Your task to perform on an android device: change notifications settings Image 0: 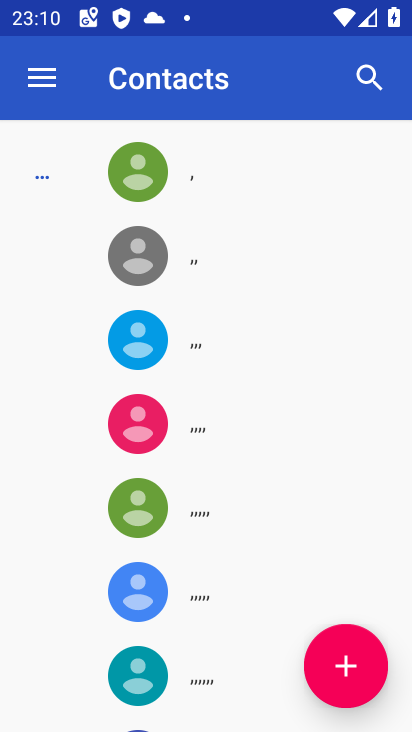
Step 0: press home button
Your task to perform on an android device: change notifications settings Image 1: 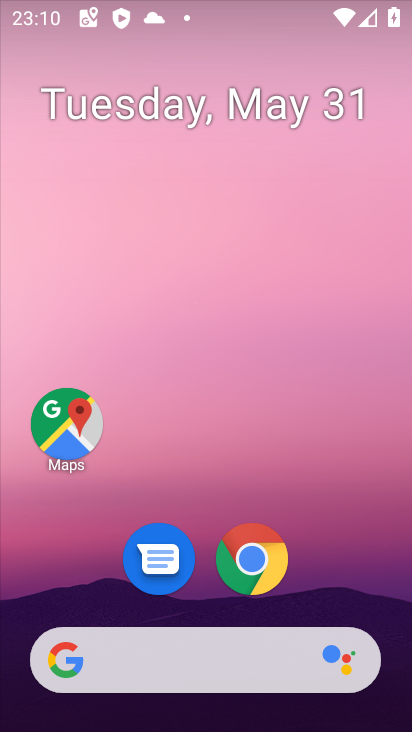
Step 1: drag from (335, 509) to (305, 66)
Your task to perform on an android device: change notifications settings Image 2: 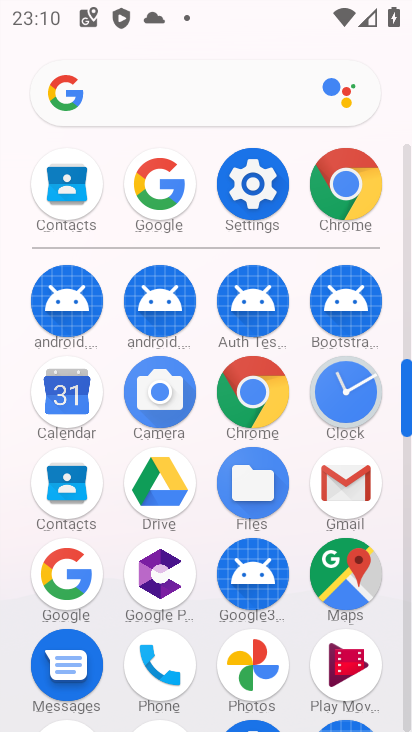
Step 2: click (251, 180)
Your task to perform on an android device: change notifications settings Image 3: 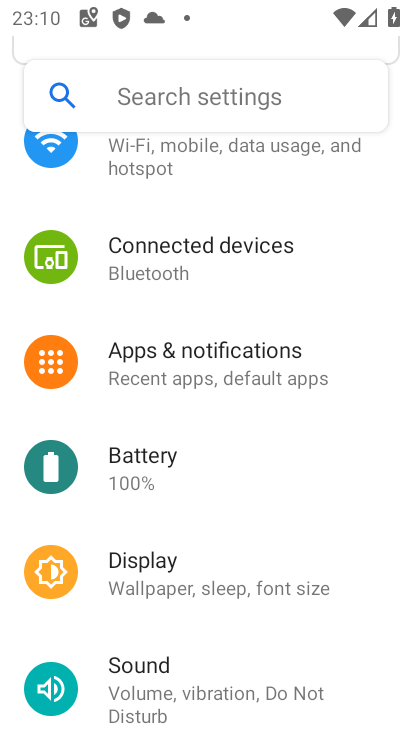
Step 3: drag from (234, 189) to (234, 531)
Your task to perform on an android device: change notifications settings Image 4: 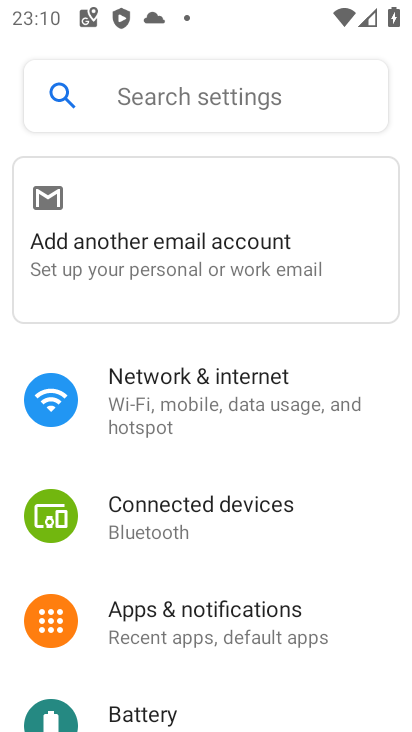
Step 4: click (225, 622)
Your task to perform on an android device: change notifications settings Image 5: 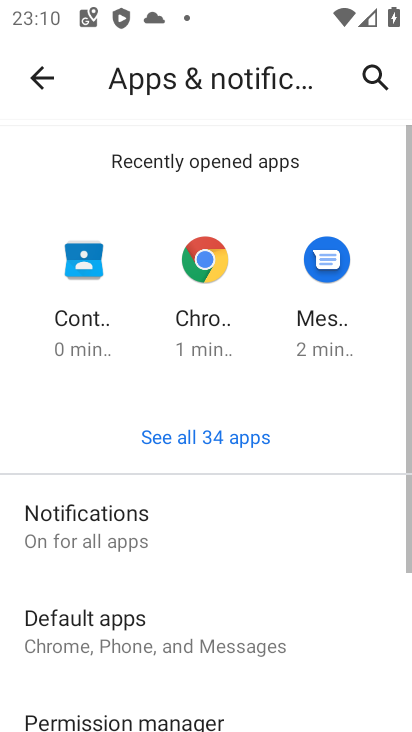
Step 5: click (95, 538)
Your task to perform on an android device: change notifications settings Image 6: 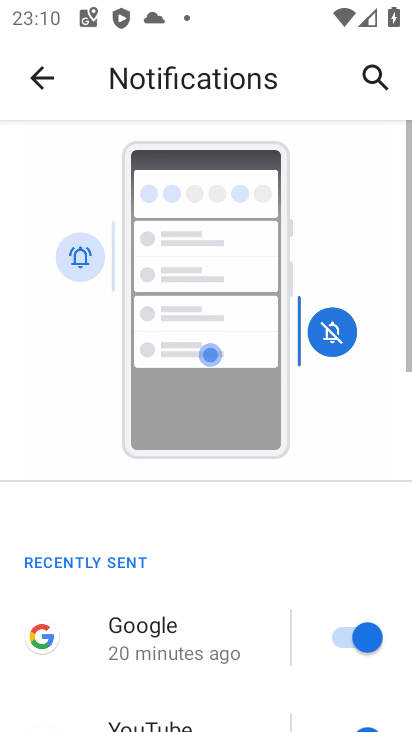
Step 6: drag from (234, 553) to (188, 0)
Your task to perform on an android device: change notifications settings Image 7: 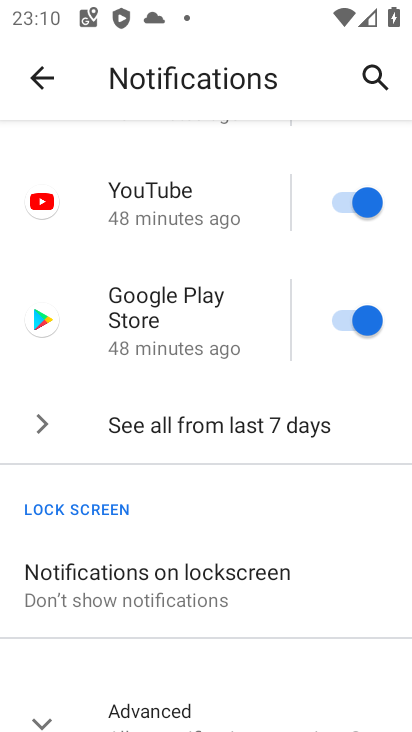
Step 7: drag from (253, 601) to (218, 200)
Your task to perform on an android device: change notifications settings Image 8: 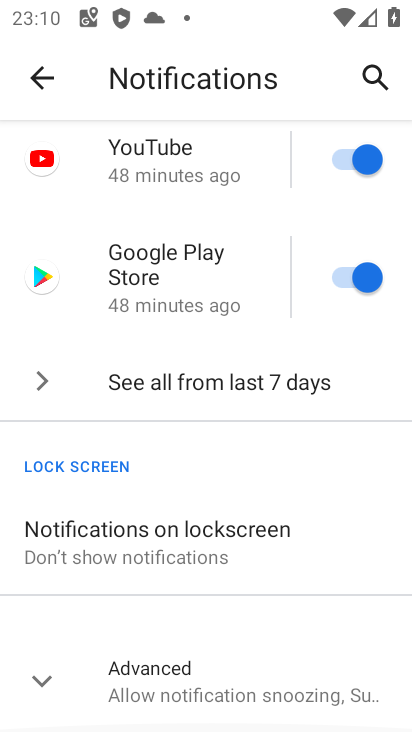
Step 8: click (175, 671)
Your task to perform on an android device: change notifications settings Image 9: 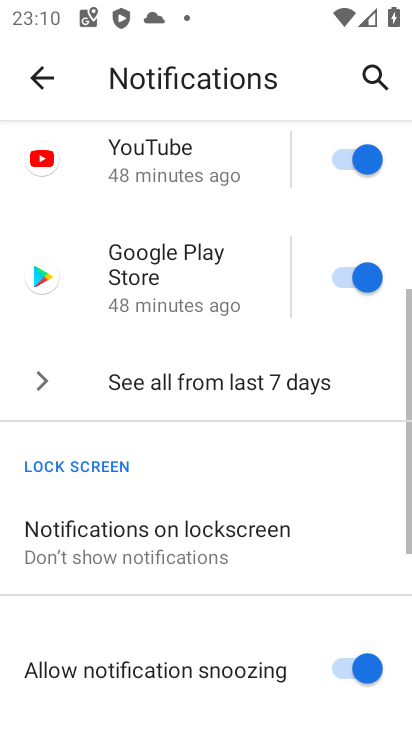
Step 9: drag from (287, 631) to (244, 169)
Your task to perform on an android device: change notifications settings Image 10: 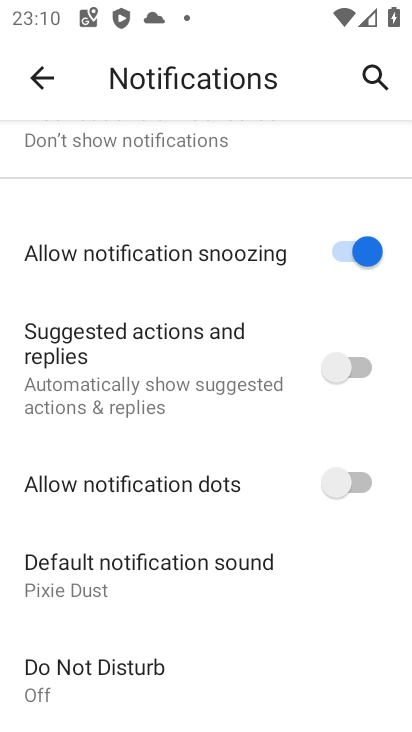
Step 10: click (356, 244)
Your task to perform on an android device: change notifications settings Image 11: 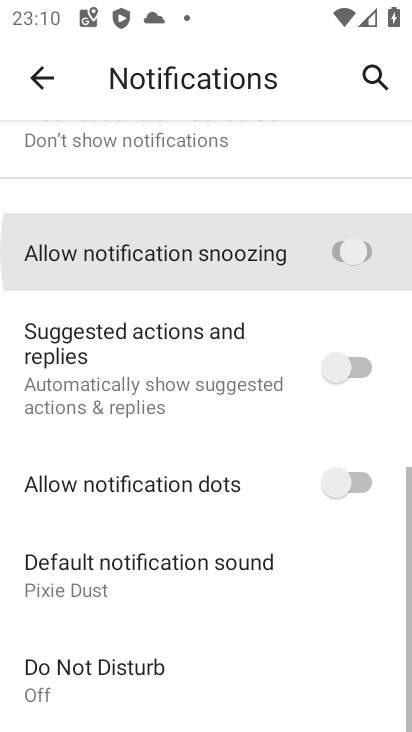
Step 11: click (348, 367)
Your task to perform on an android device: change notifications settings Image 12: 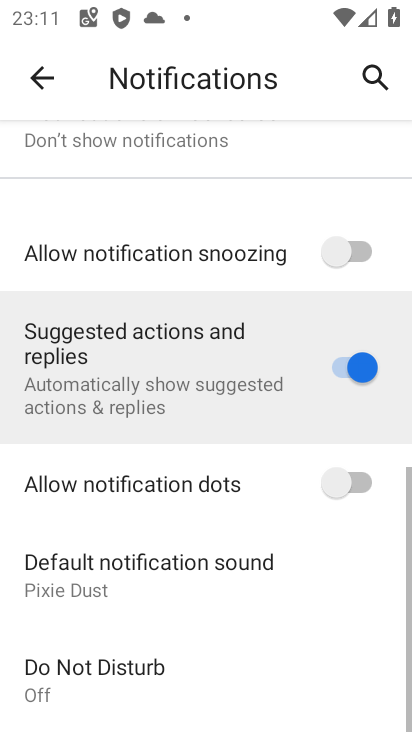
Step 12: click (364, 488)
Your task to perform on an android device: change notifications settings Image 13: 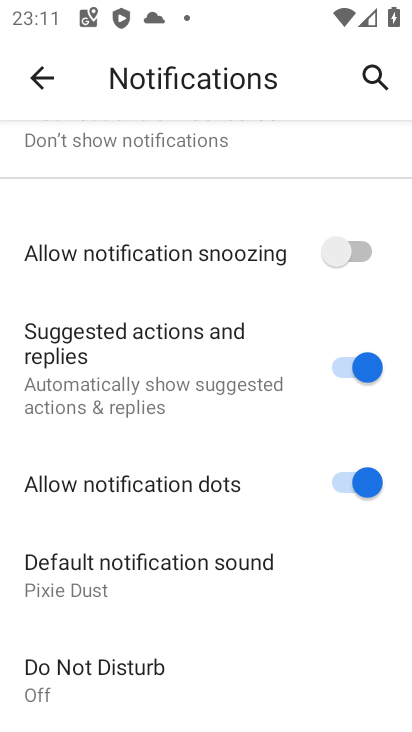
Step 13: task complete